Your task to perform on an android device: turn on showing notifications on the lock screen Image 0: 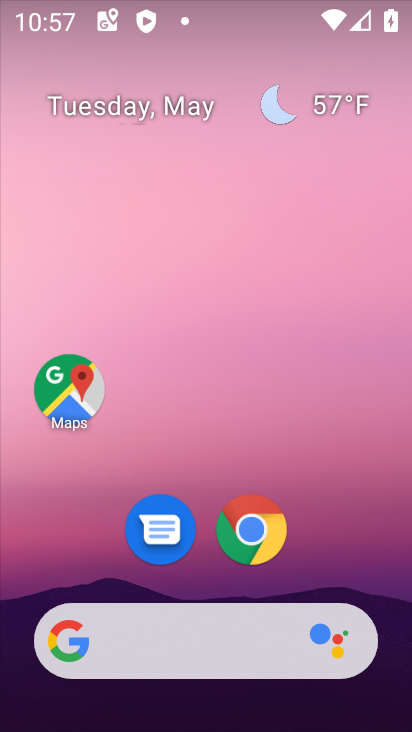
Step 0: drag from (225, 575) to (231, 46)
Your task to perform on an android device: turn on showing notifications on the lock screen Image 1: 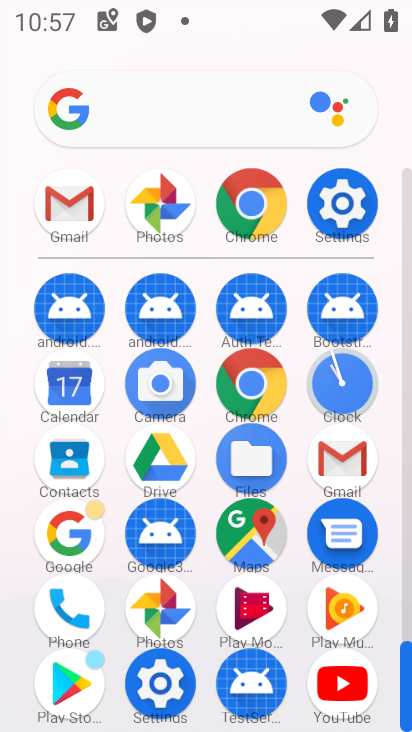
Step 1: click (344, 198)
Your task to perform on an android device: turn on showing notifications on the lock screen Image 2: 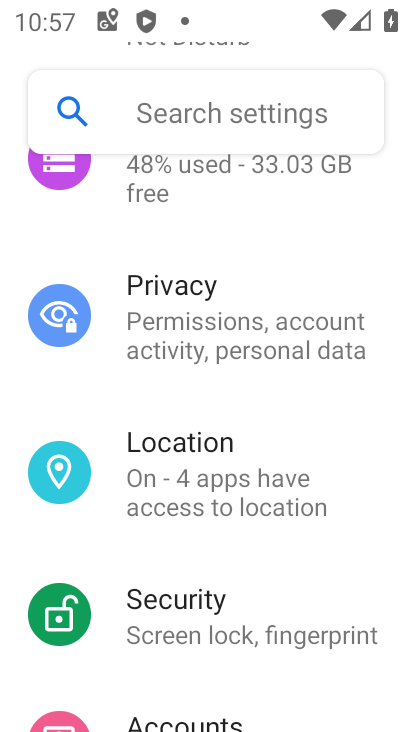
Step 2: drag from (164, 533) to (181, 22)
Your task to perform on an android device: turn on showing notifications on the lock screen Image 3: 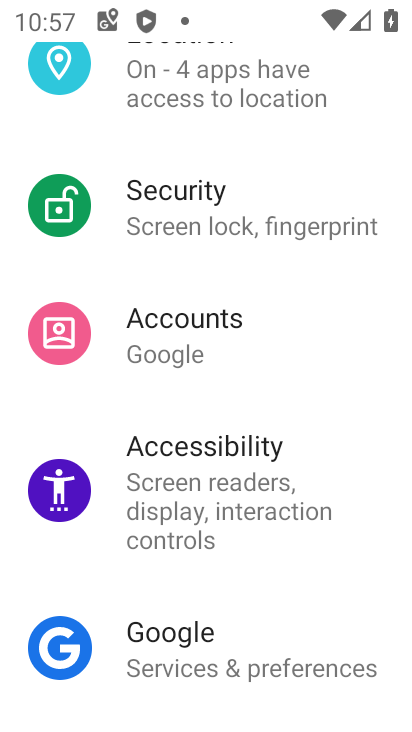
Step 3: drag from (237, 137) to (196, 643)
Your task to perform on an android device: turn on showing notifications on the lock screen Image 4: 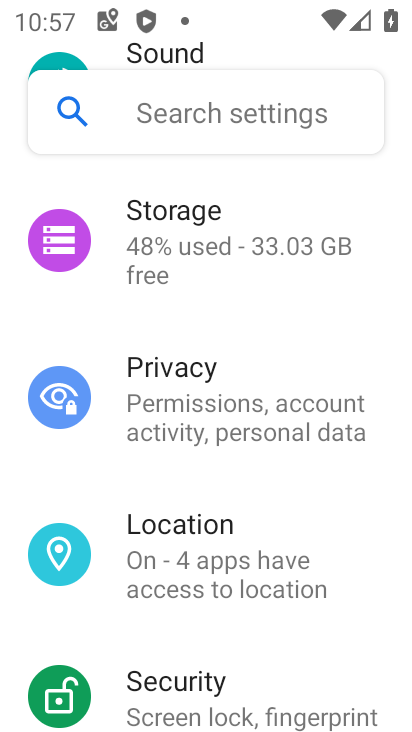
Step 4: drag from (221, 213) to (235, 703)
Your task to perform on an android device: turn on showing notifications on the lock screen Image 5: 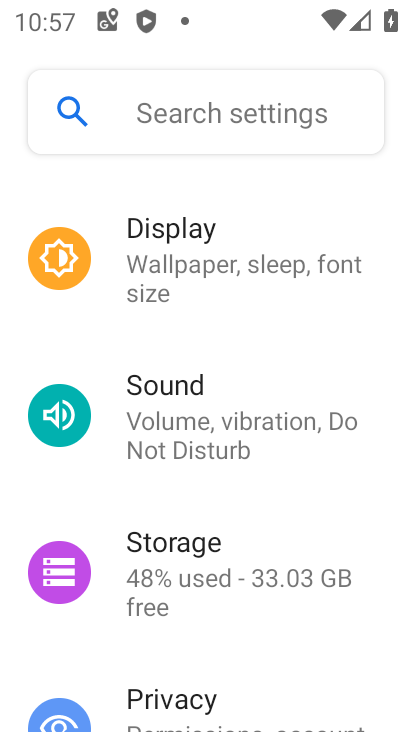
Step 5: drag from (247, 211) to (218, 713)
Your task to perform on an android device: turn on showing notifications on the lock screen Image 6: 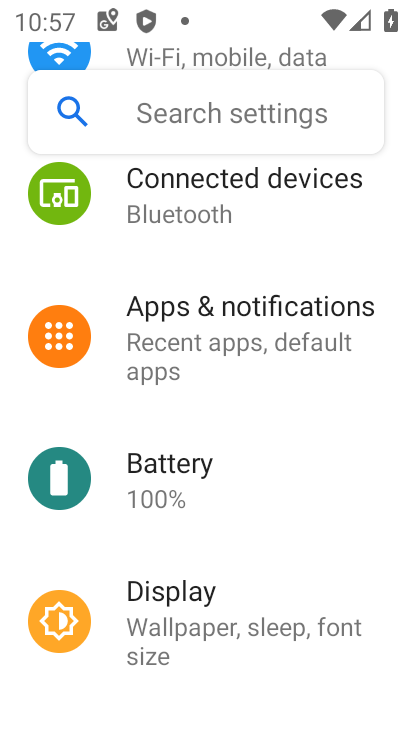
Step 6: click (235, 331)
Your task to perform on an android device: turn on showing notifications on the lock screen Image 7: 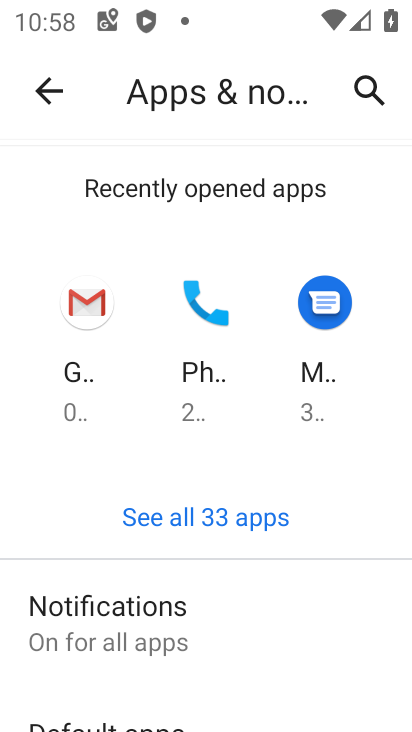
Step 7: drag from (138, 656) to (222, 163)
Your task to perform on an android device: turn on showing notifications on the lock screen Image 8: 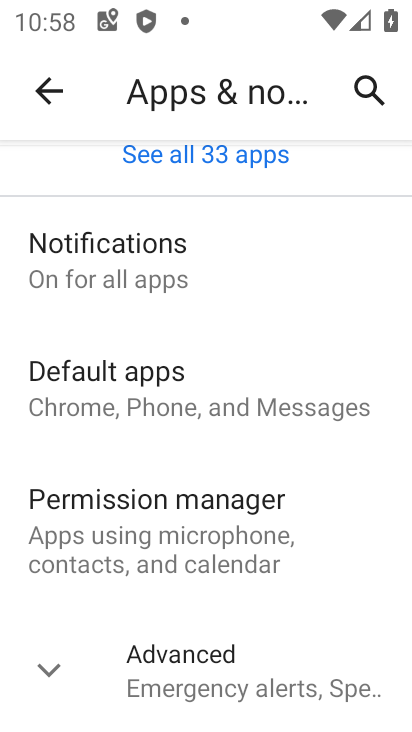
Step 8: click (208, 280)
Your task to perform on an android device: turn on showing notifications on the lock screen Image 9: 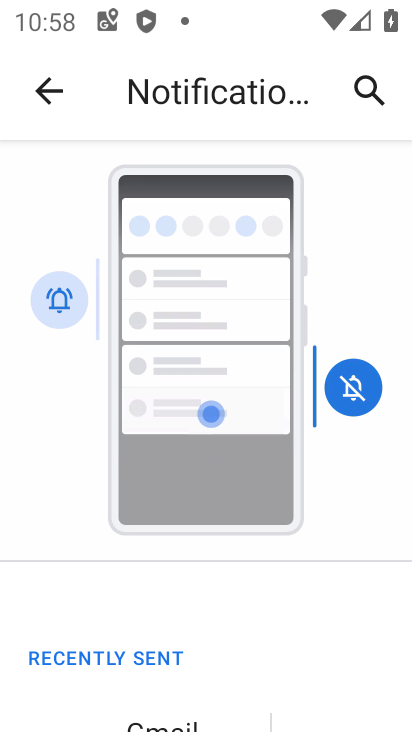
Step 9: drag from (236, 617) to (263, 243)
Your task to perform on an android device: turn on showing notifications on the lock screen Image 10: 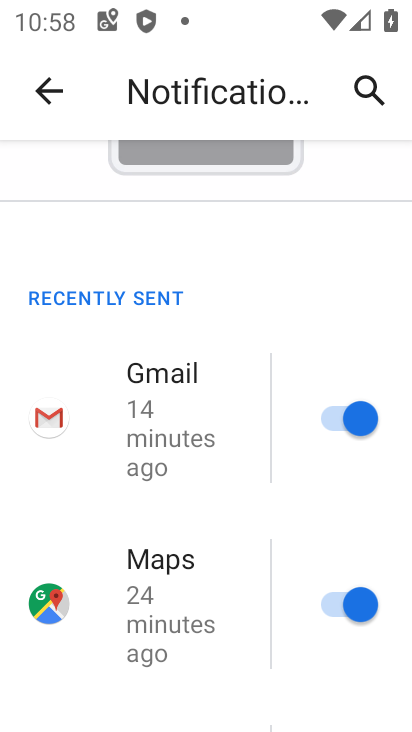
Step 10: drag from (157, 660) to (259, 114)
Your task to perform on an android device: turn on showing notifications on the lock screen Image 11: 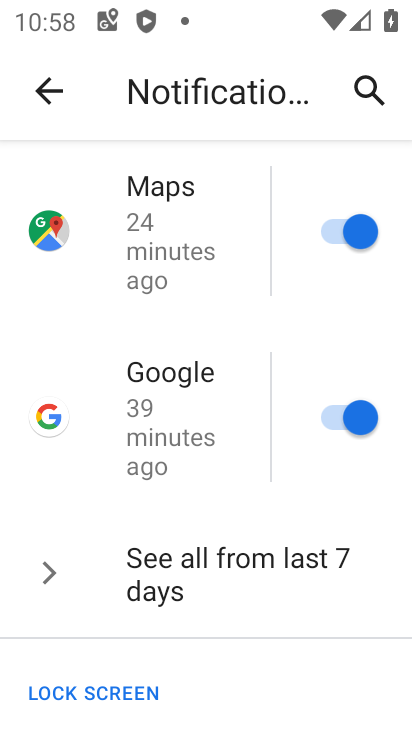
Step 11: drag from (233, 649) to (272, 394)
Your task to perform on an android device: turn on showing notifications on the lock screen Image 12: 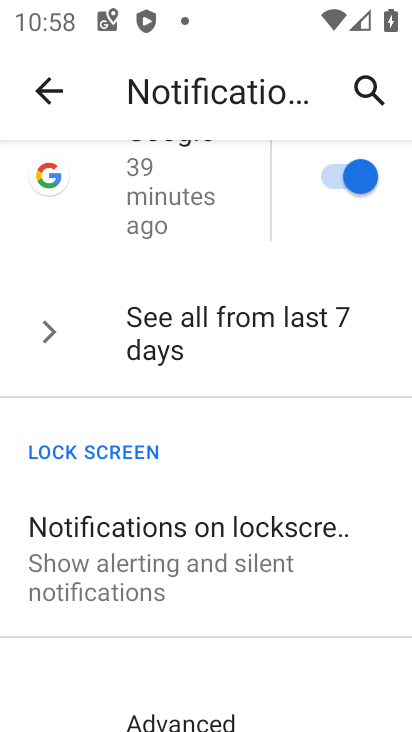
Step 12: click (264, 538)
Your task to perform on an android device: turn on showing notifications on the lock screen Image 13: 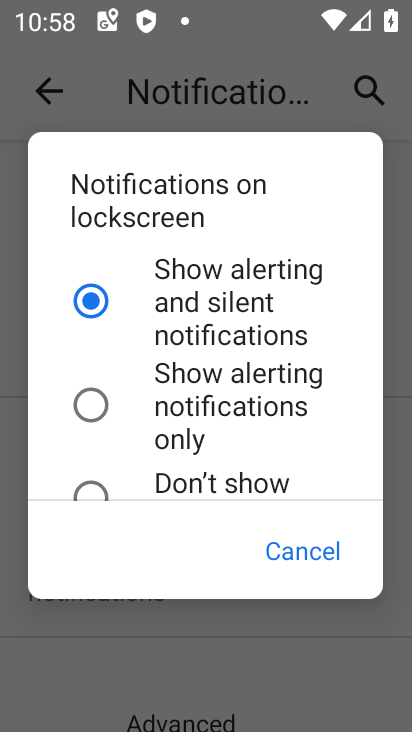
Step 13: task complete